Your task to perform on an android device: When is my next appointment? Image 0: 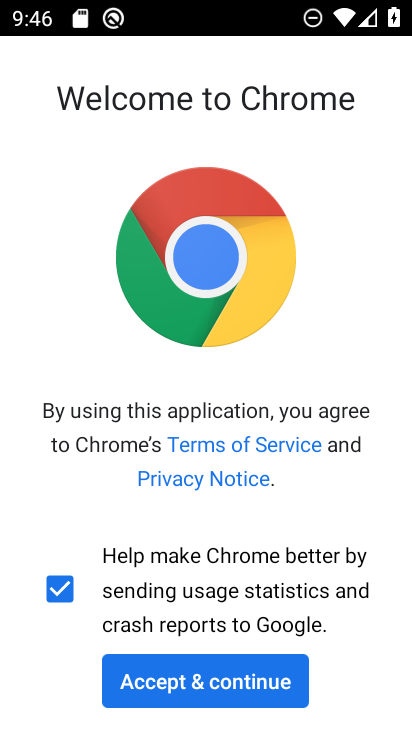
Step 0: press home button
Your task to perform on an android device: When is my next appointment? Image 1: 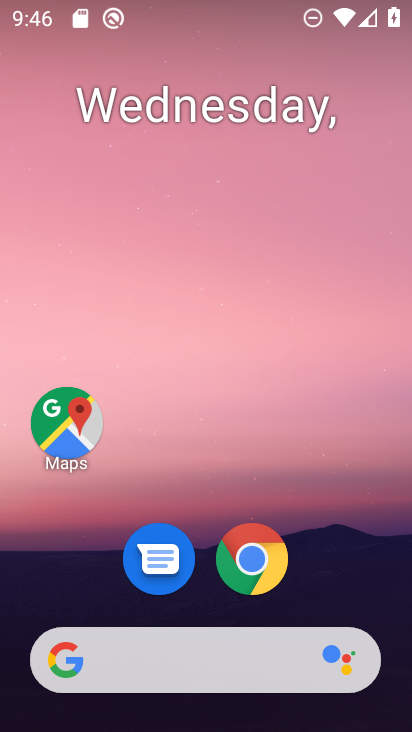
Step 1: drag from (350, 606) to (348, 250)
Your task to perform on an android device: When is my next appointment? Image 2: 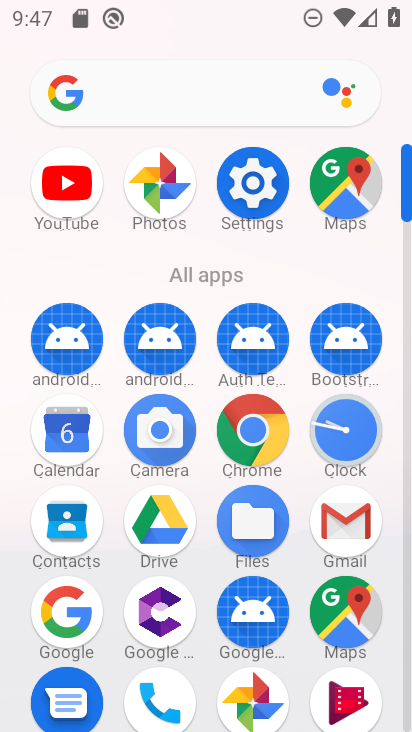
Step 2: click (84, 441)
Your task to perform on an android device: When is my next appointment? Image 3: 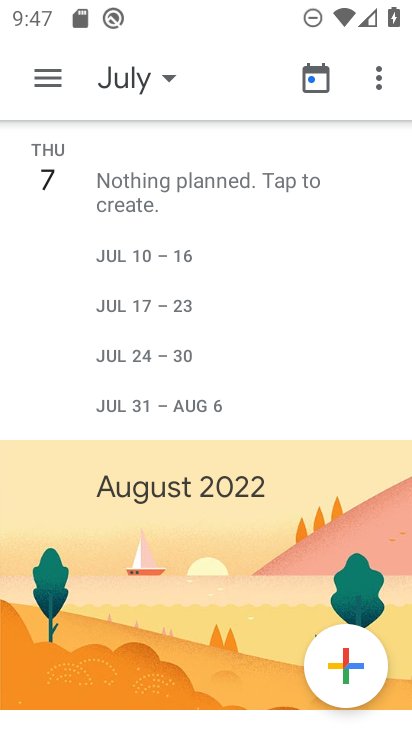
Step 3: task complete